Your task to perform on an android device: See recent photos Image 0: 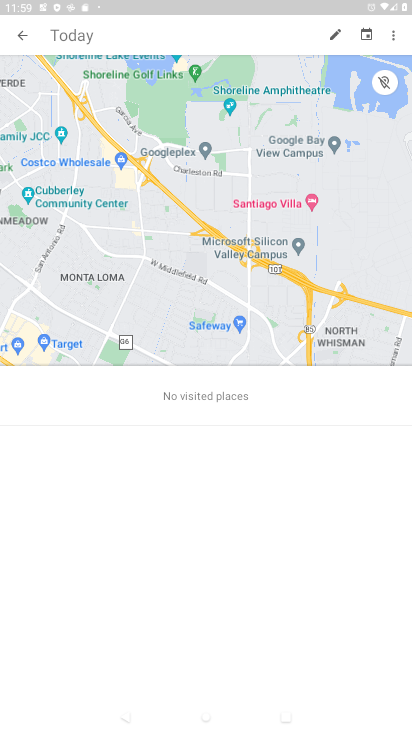
Step 0: press home button
Your task to perform on an android device: See recent photos Image 1: 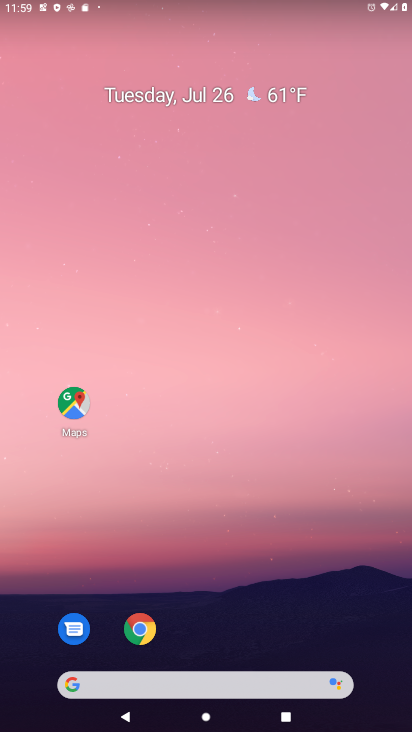
Step 1: drag from (264, 650) to (284, 99)
Your task to perform on an android device: See recent photos Image 2: 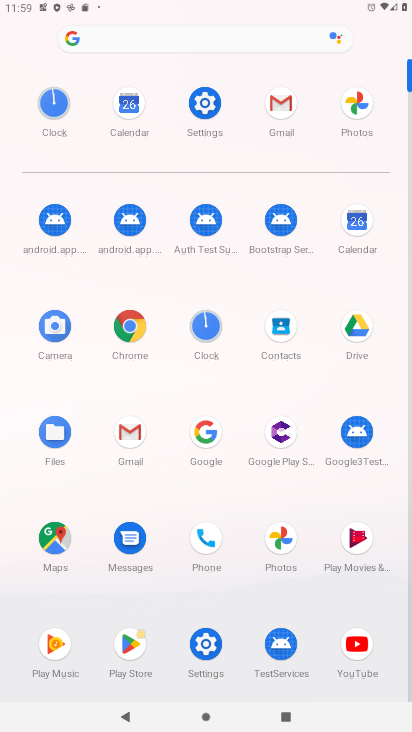
Step 2: click (352, 130)
Your task to perform on an android device: See recent photos Image 3: 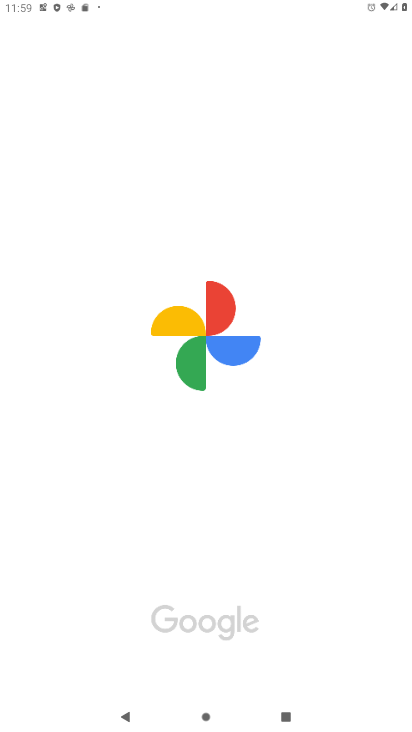
Step 3: task complete